Your task to perform on an android device: Do I have any events tomorrow? Image 0: 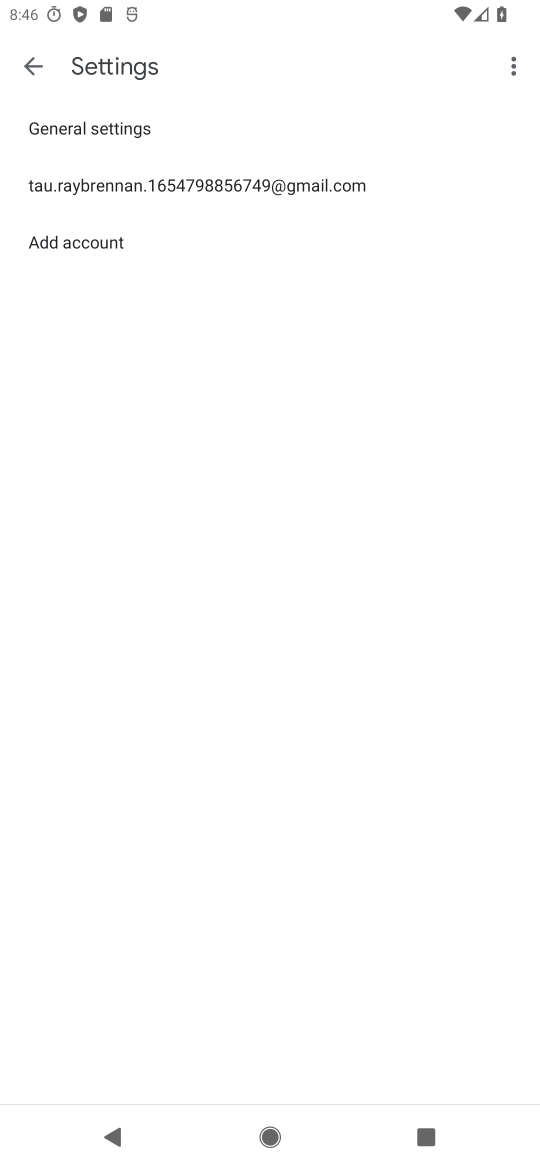
Step 0: press home button
Your task to perform on an android device: Do I have any events tomorrow? Image 1: 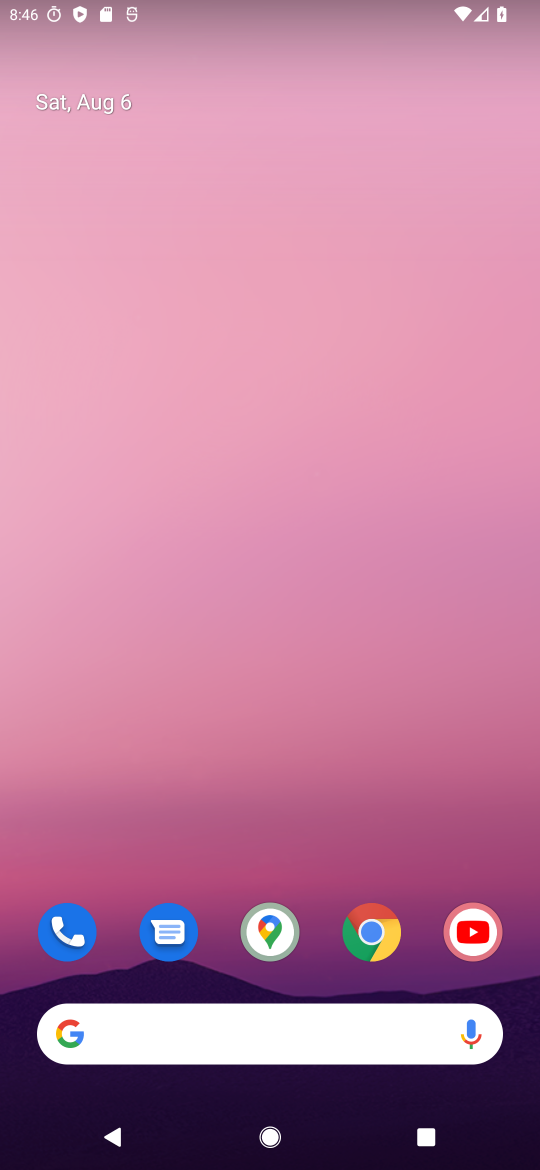
Step 1: drag from (325, 1041) to (439, 310)
Your task to perform on an android device: Do I have any events tomorrow? Image 2: 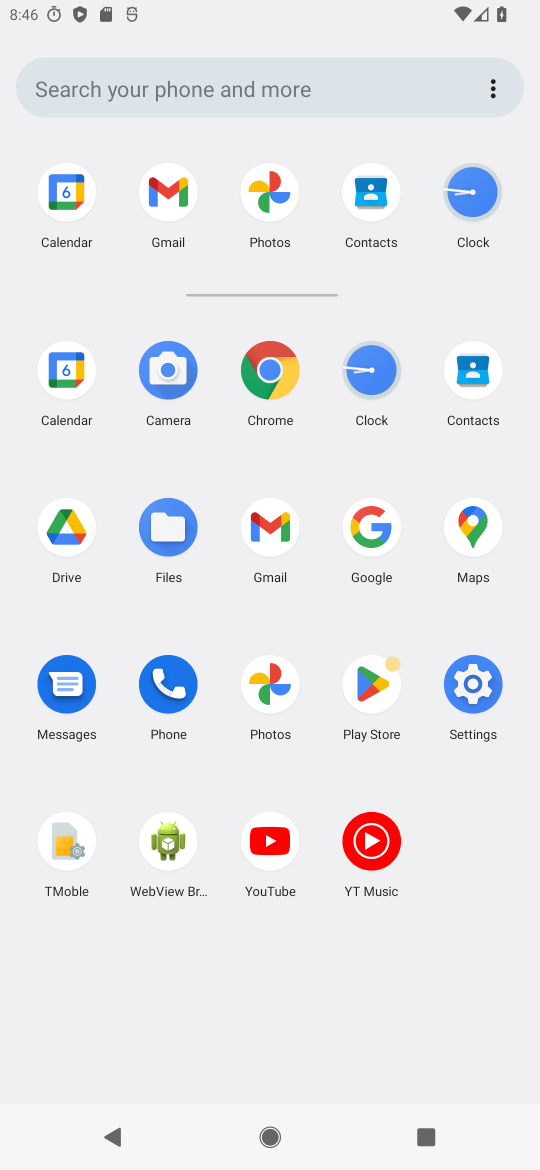
Step 2: click (63, 193)
Your task to perform on an android device: Do I have any events tomorrow? Image 3: 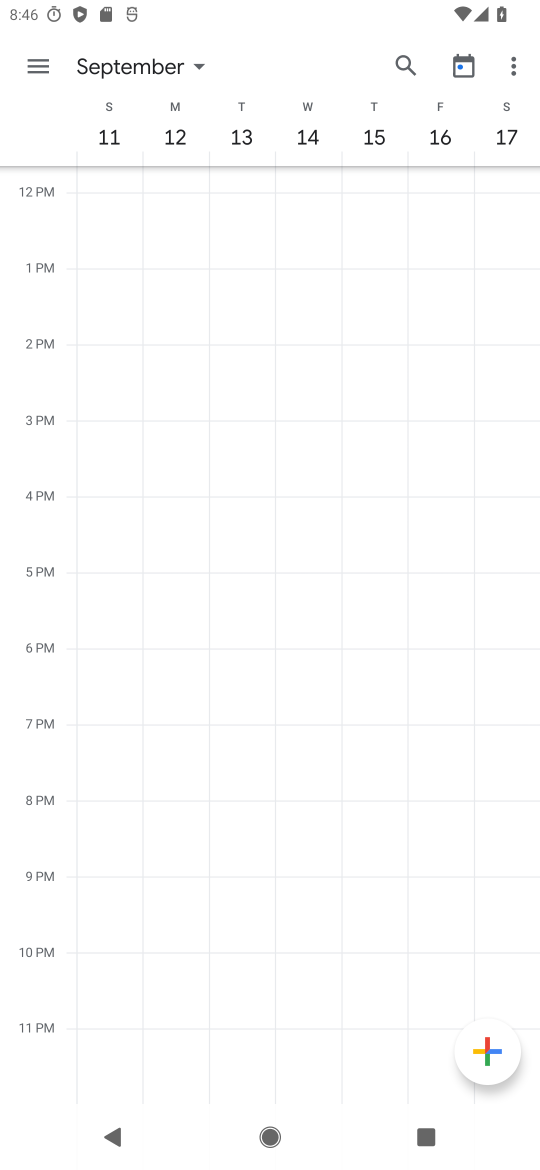
Step 3: click (147, 58)
Your task to perform on an android device: Do I have any events tomorrow? Image 4: 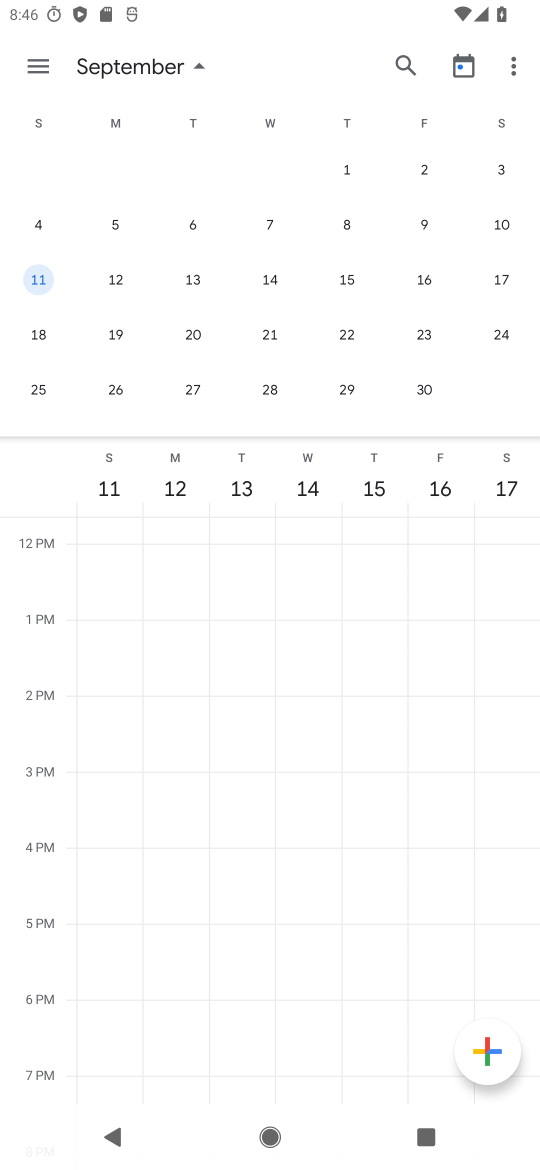
Step 4: drag from (76, 365) to (526, 338)
Your task to perform on an android device: Do I have any events tomorrow? Image 5: 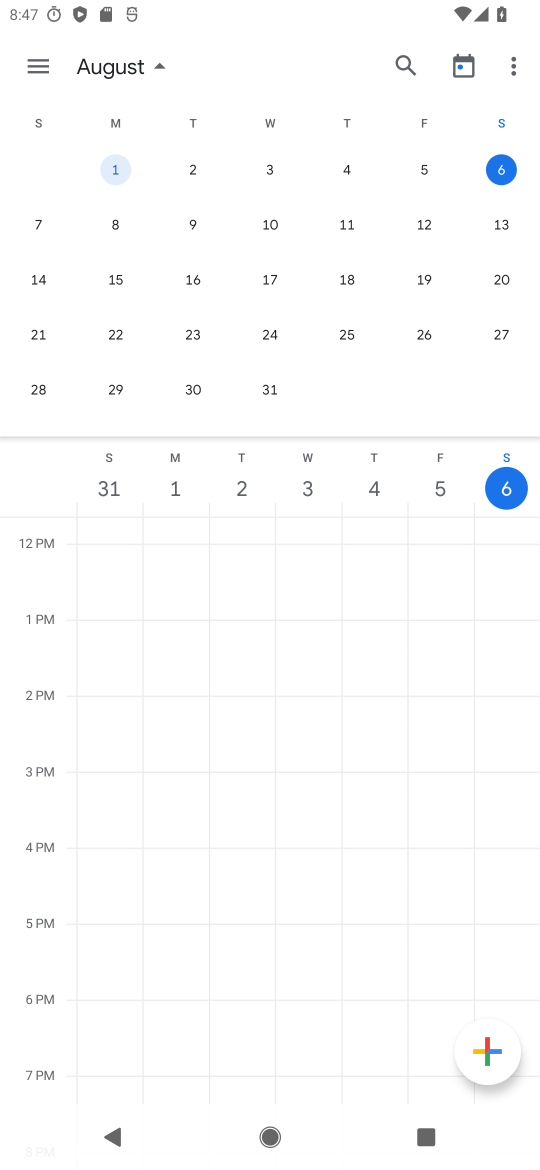
Step 5: click (34, 224)
Your task to perform on an android device: Do I have any events tomorrow? Image 6: 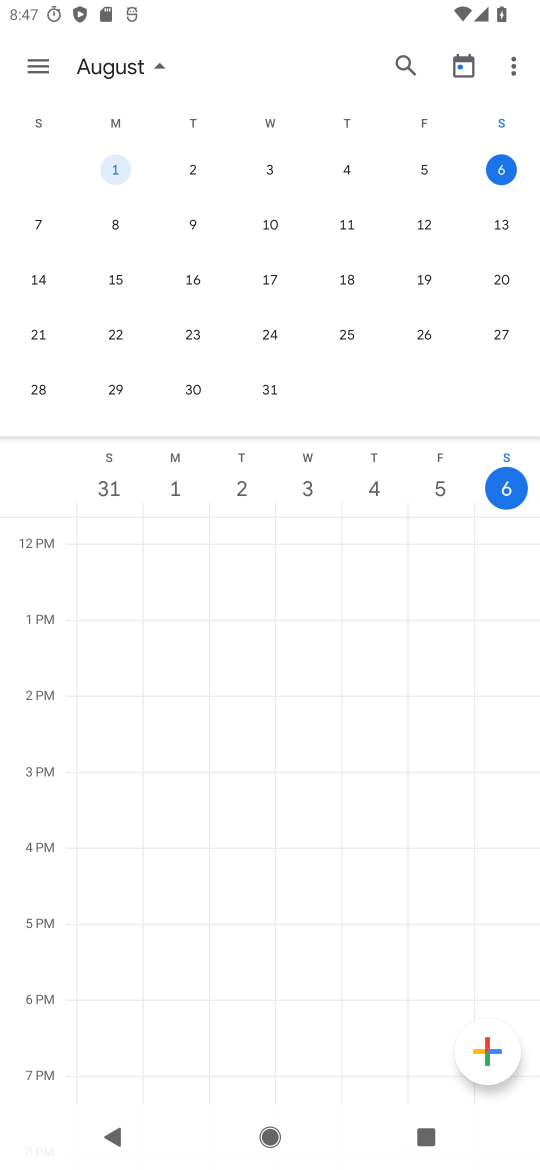
Step 6: click (42, 223)
Your task to perform on an android device: Do I have any events tomorrow? Image 7: 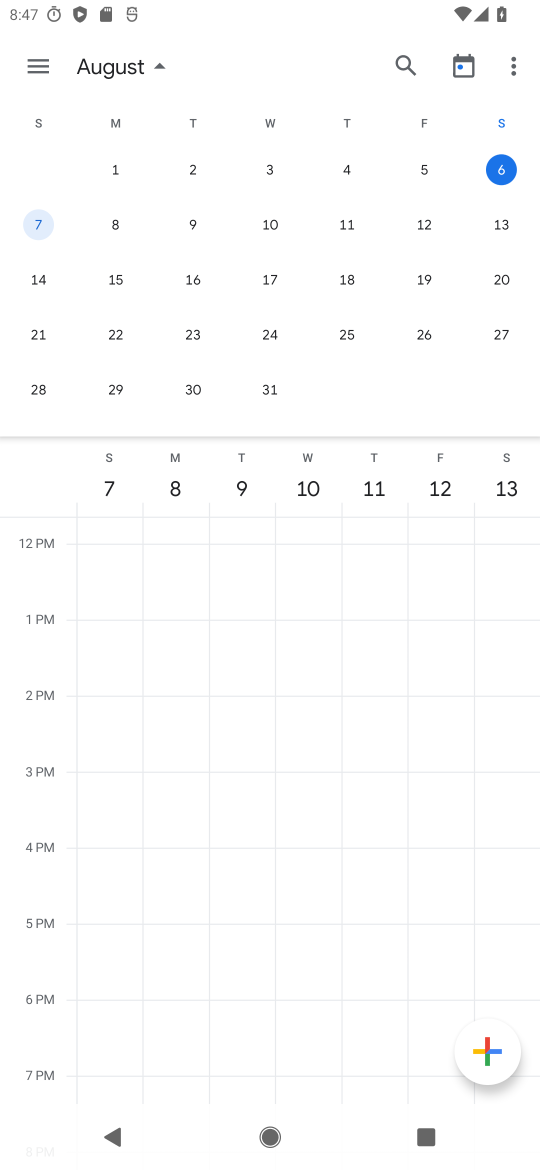
Step 7: click (48, 68)
Your task to perform on an android device: Do I have any events tomorrow? Image 8: 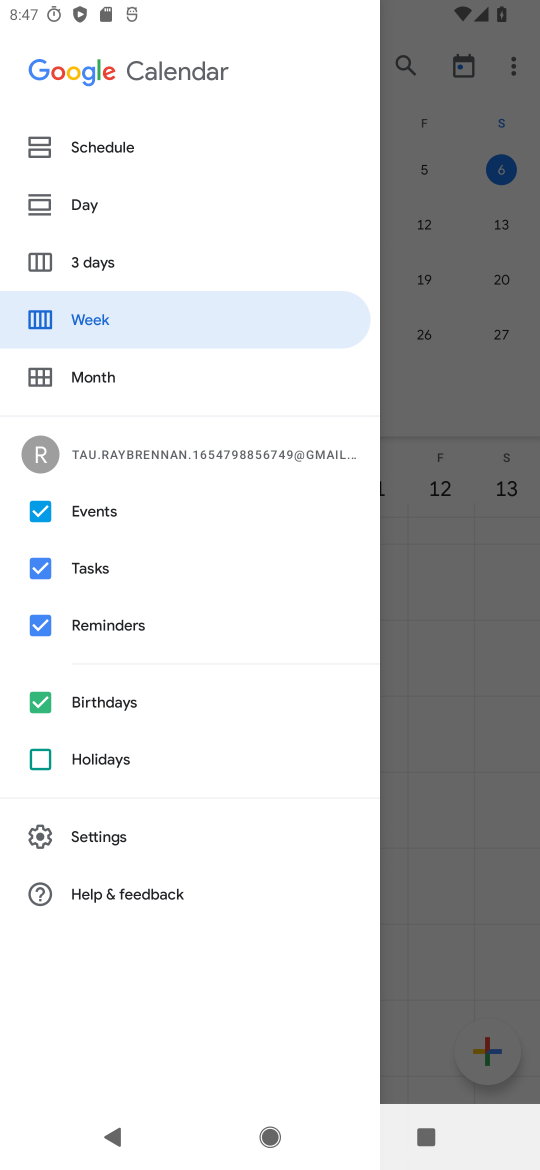
Step 8: click (93, 205)
Your task to perform on an android device: Do I have any events tomorrow? Image 9: 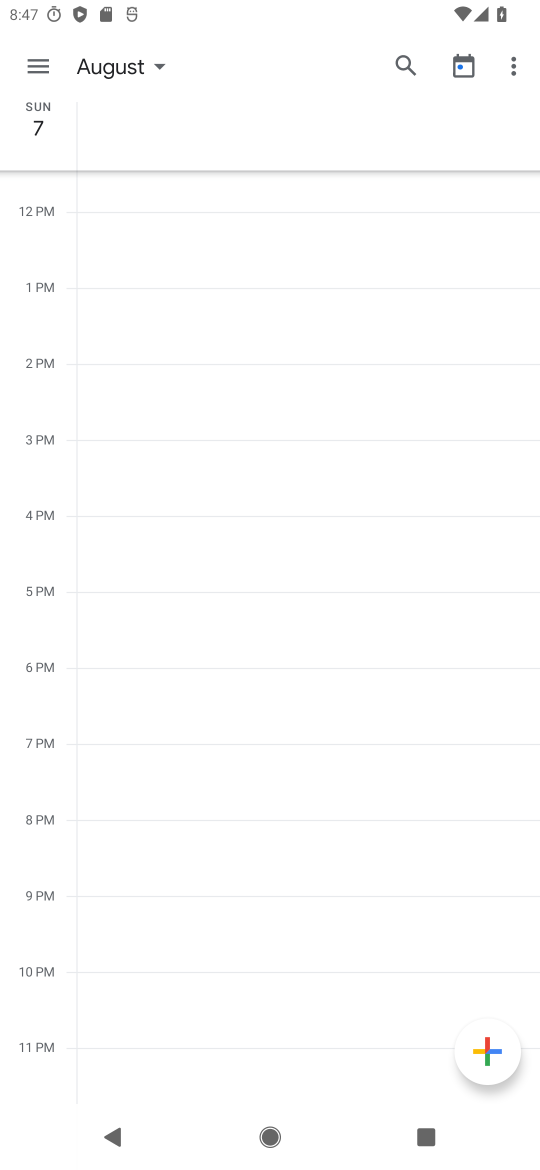
Step 9: click (21, 71)
Your task to perform on an android device: Do I have any events tomorrow? Image 10: 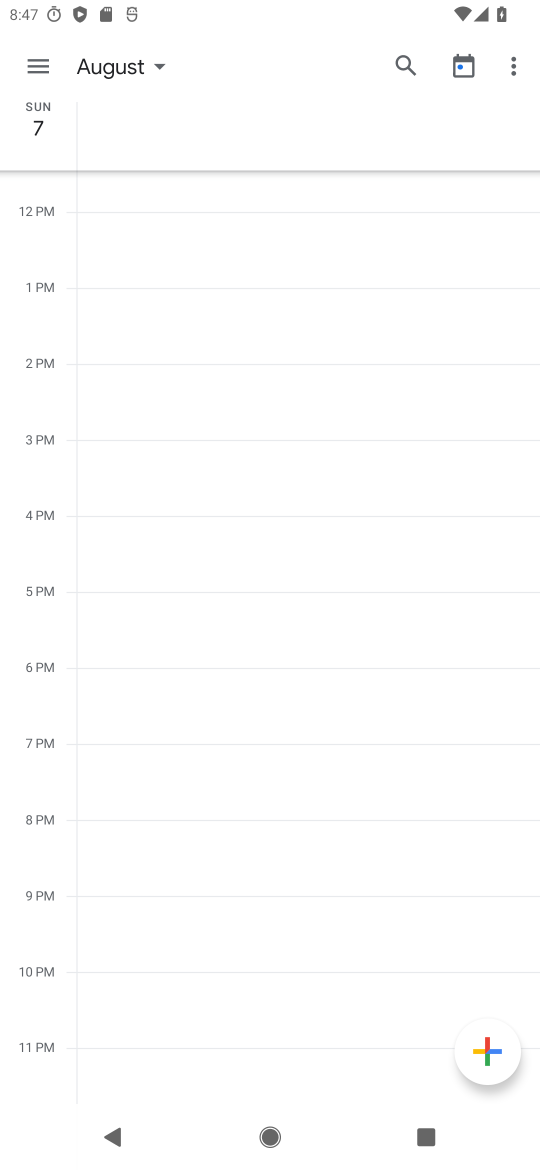
Step 10: click (40, 62)
Your task to perform on an android device: Do I have any events tomorrow? Image 11: 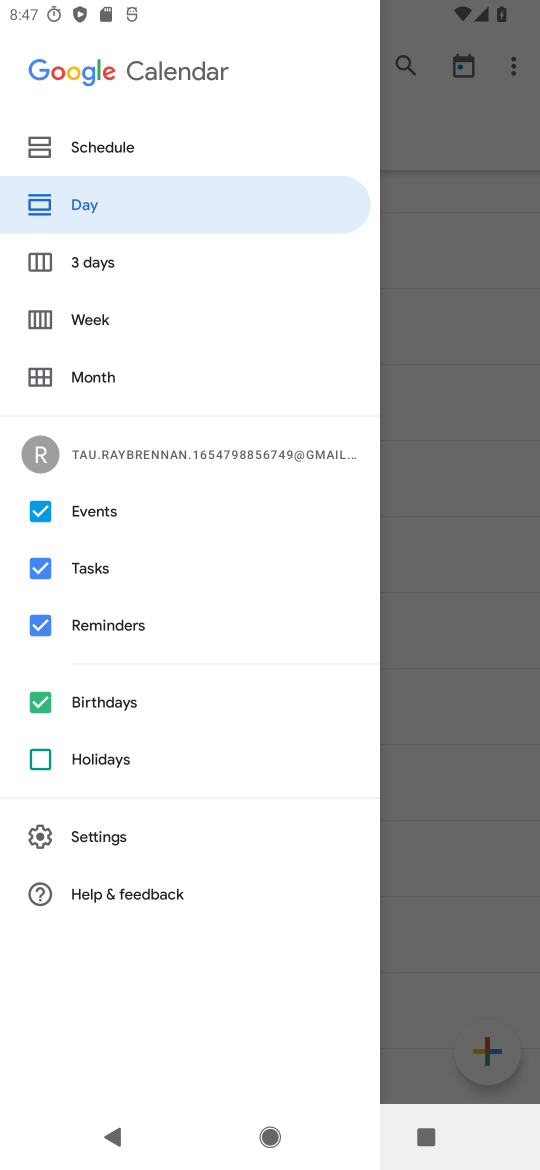
Step 11: click (75, 138)
Your task to perform on an android device: Do I have any events tomorrow? Image 12: 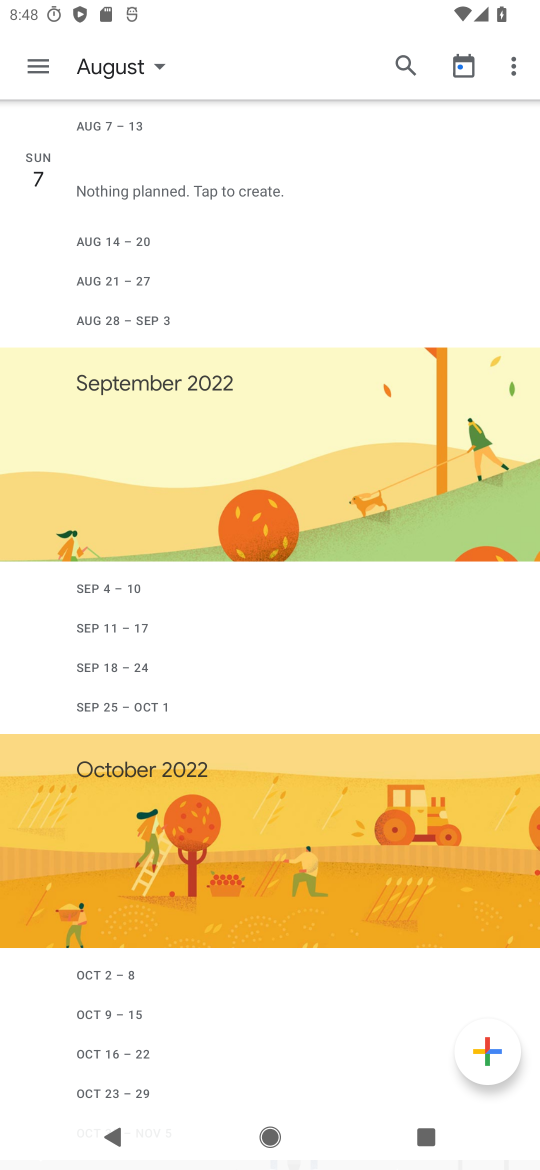
Step 12: task complete